Your task to perform on an android device: Open Chrome and go to settings Image 0: 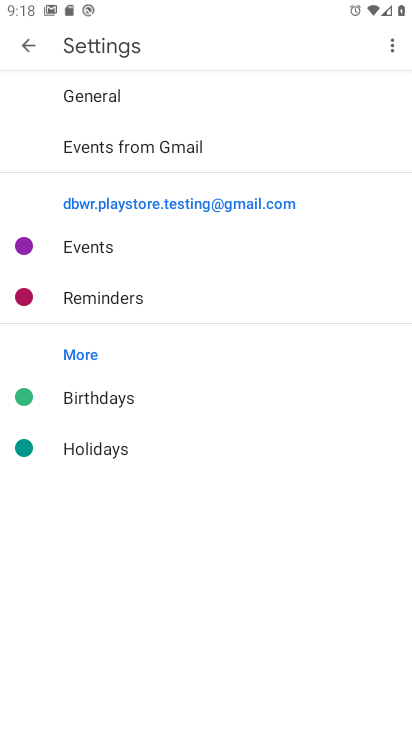
Step 0: press home button
Your task to perform on an android device: Open Chrome and go to settings Image 1: 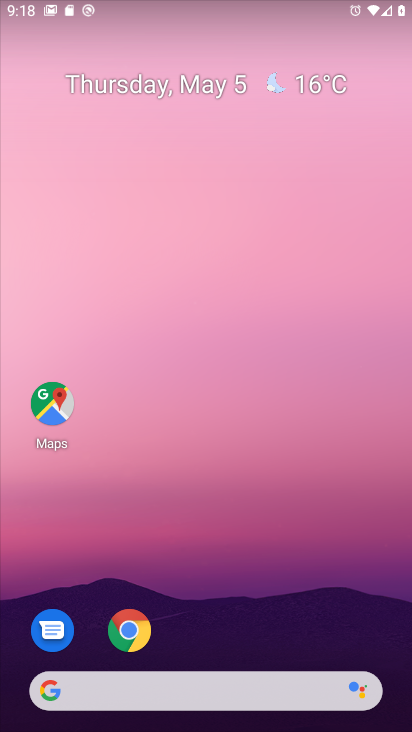
Step 1: drag from (253, 559) to (291, 107)
Your task to perform on an android device: Open Chrome and go to settings Image 2: 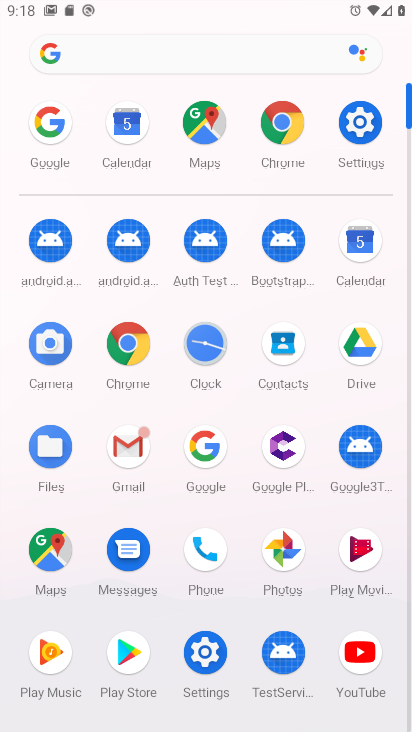
Step 2: click (260, 131)
Your task to perform on an android device: Open Chrome and go to settings Image 3: 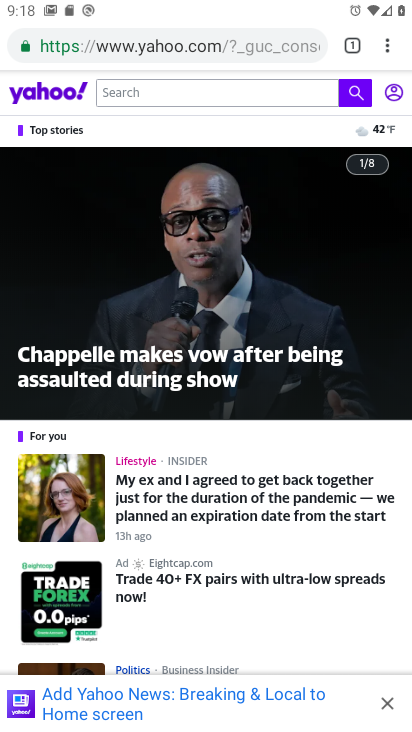
Step 3: task complete